Your task to perform on an android device: Go to Reddit.com Image 0: 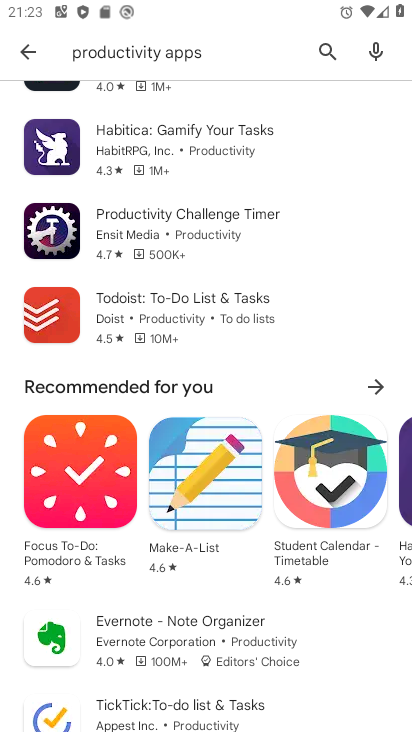
Step 0: press home button
Your task to perform on an android device: Go to Reddit.com Image 1: 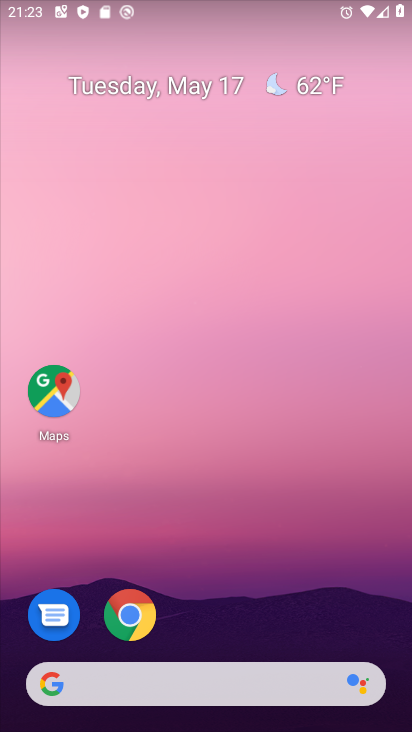
Step 1: click (127, 608)
Your task to perform on an android device: Go to Reddit.com Image 2: 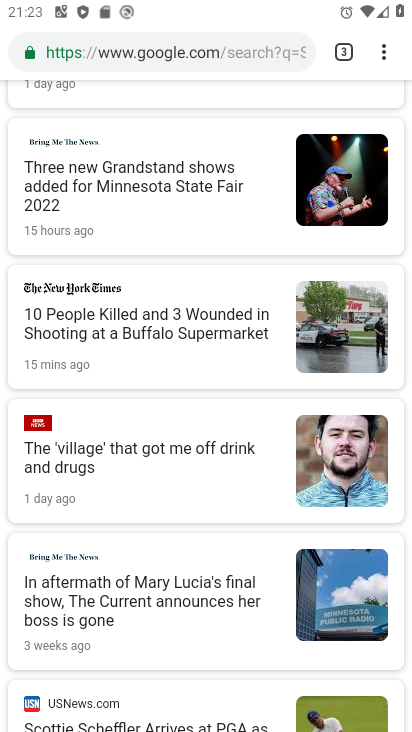
Step 2: click (223, 55)
Your task to perform on an android device: Go to Reddit.com Image 3: 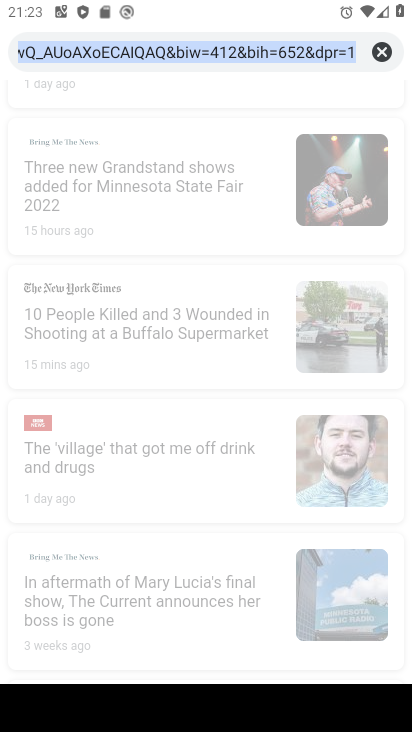
Step 3: click (382, 44)
Your task to perform on an android device: Go to Reddit.com Image 4: 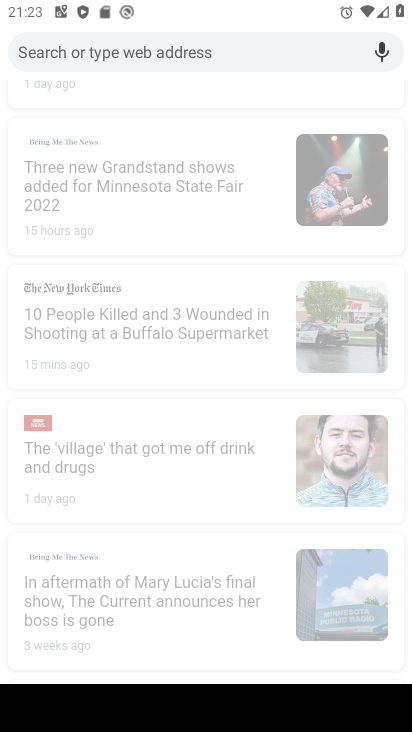
Step 4: type " Reddit.com"
Your task to perform on an android device: Go to Reddit.com Image 5: 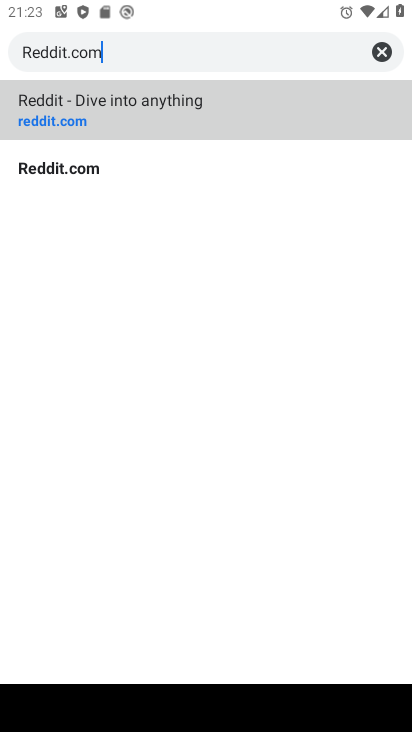
Step 5: click (72, 116)
Your task to perform on an android device: Go to Reddit.com Image 6: 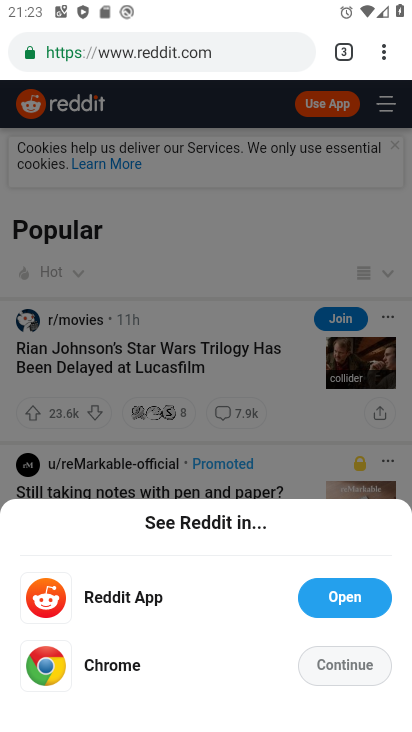
Step 6: task complete